Your task to perform on an android device: What is the news today? Image 0: 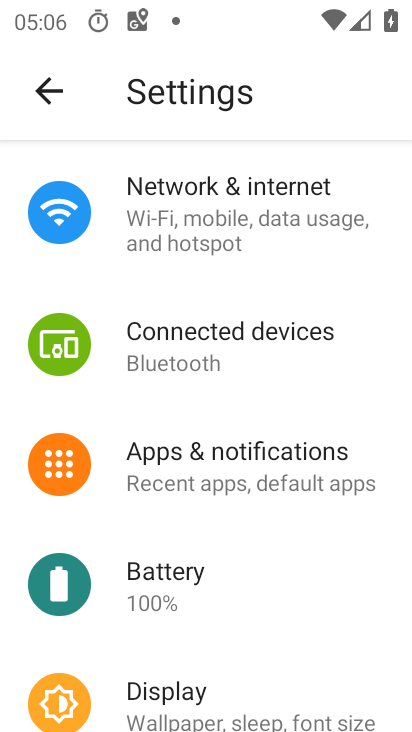
Step 0: press home button
Your task to perform on an android device: What is the news today? Image 1: 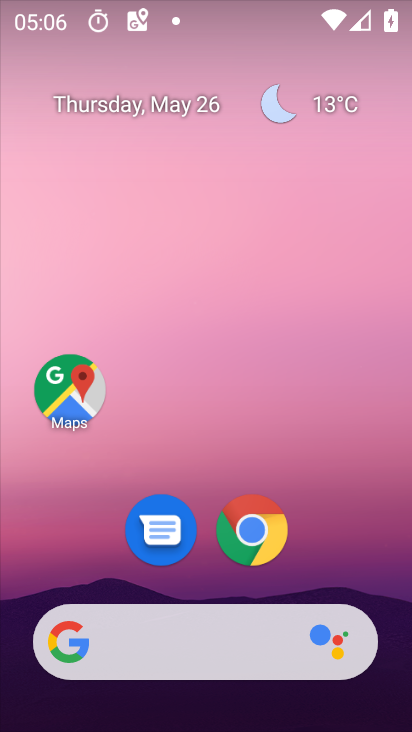
Step 1: drag from (228, 636) to (294, 5)
Your task to perform on an android device: What is the news today? Image 2: 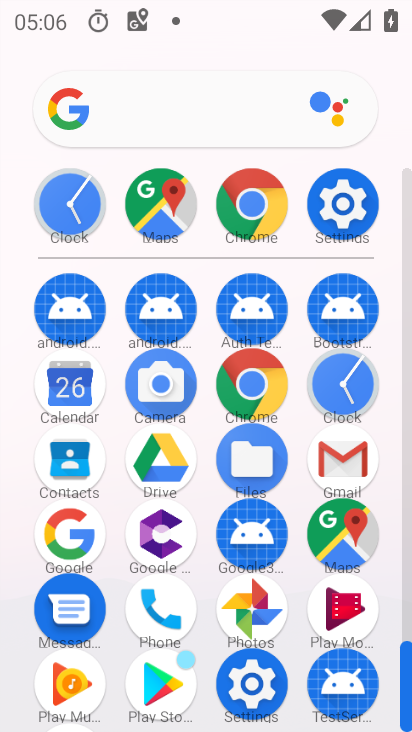
Step 2: click (254, 377)
Your task to perform on an android device: What is the news today? Image 3: 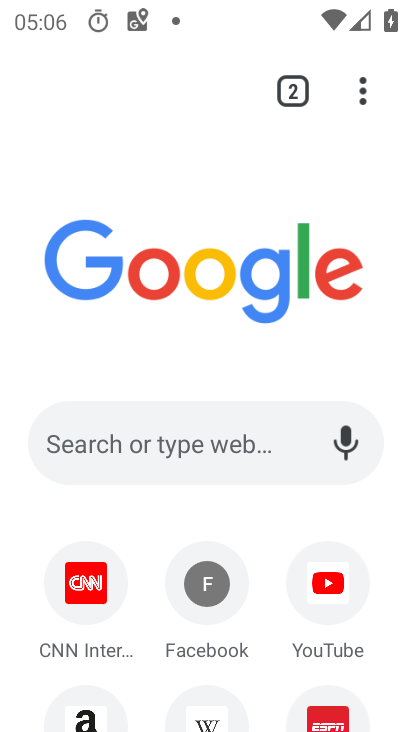
Step 3: click (129, 420)
Your task to perform on an android device: What is the news today? Image 4: 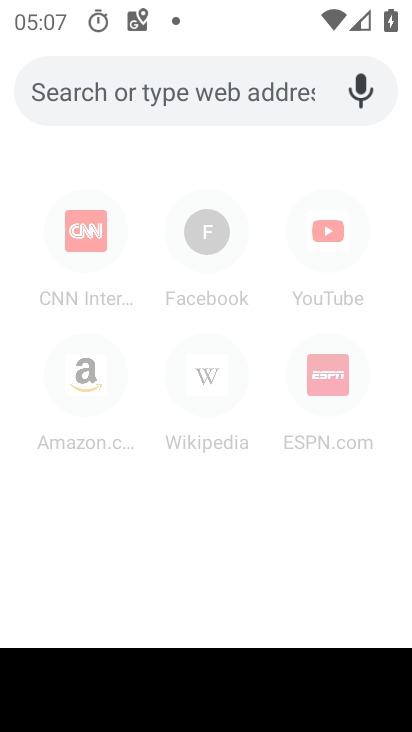
Step 4: type "news today"
Your task to perform on an android device: What is the news today? Image 5: 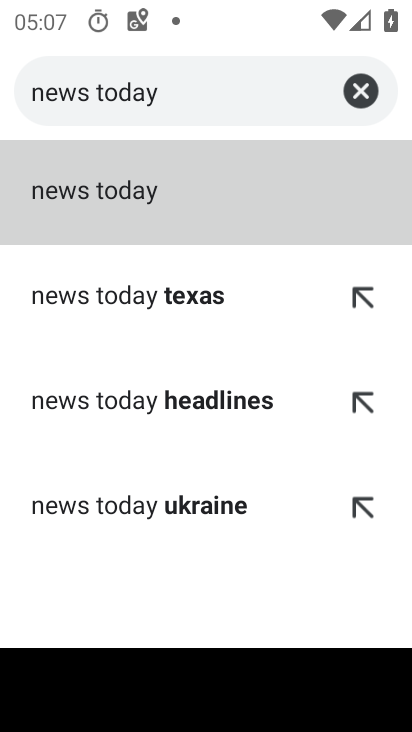
Step 5: click (143, 196)
Your task to perform on an android device: What is the news today? Image 6: 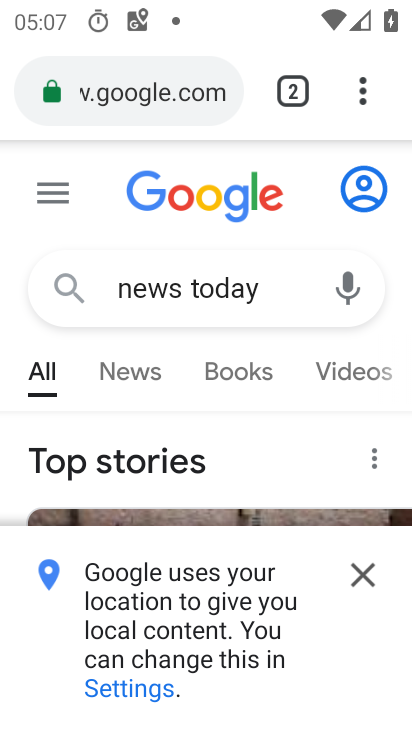
Step 6: task complete